Your task to perform on an android device: Look up the best rated coffee table on Ikea Image 0: 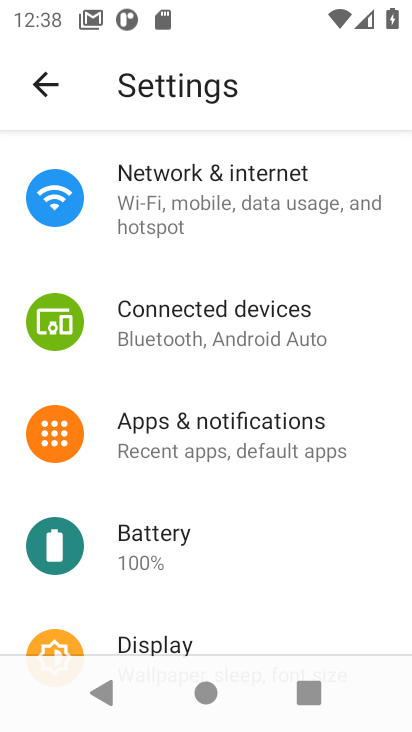
Step 0: press home button
Your task to perform on an android device: Look up the best rated coffee table on Ikea Image 1: 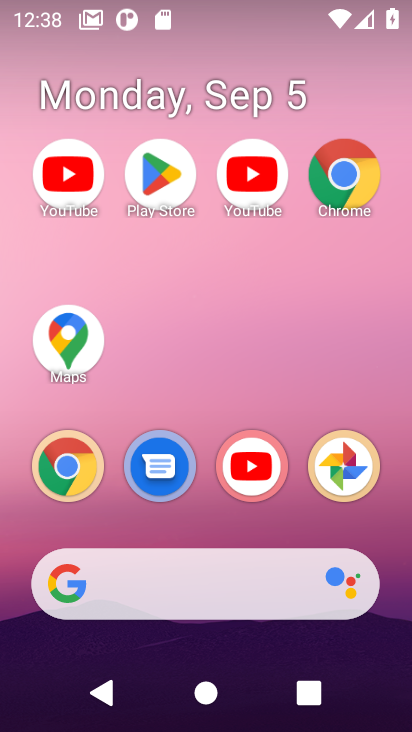
Step 1: click (335, 168)
Your task to perform on an android device: Look up the best rated coffee table on Ikea Image 2: 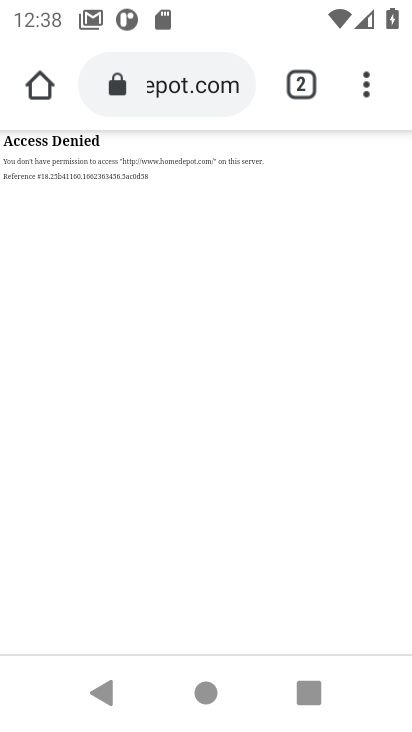
Step 2: task complete